Your task to perform on an android device: empty trash in google photos Image 0: 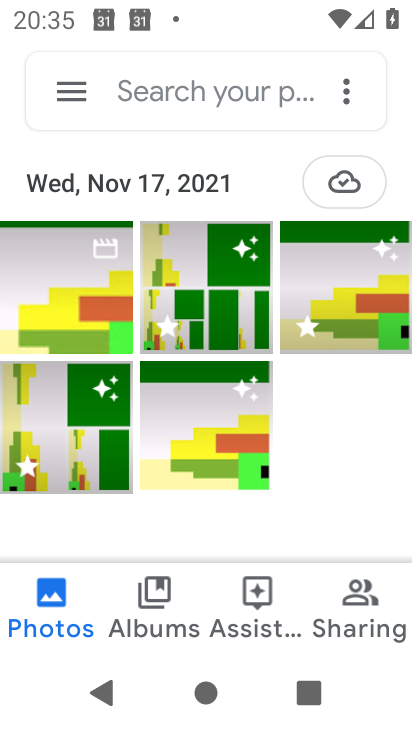
Step 0: click (62, 88)
Your task to perform on an android device: empty trash in google photos Image 1: 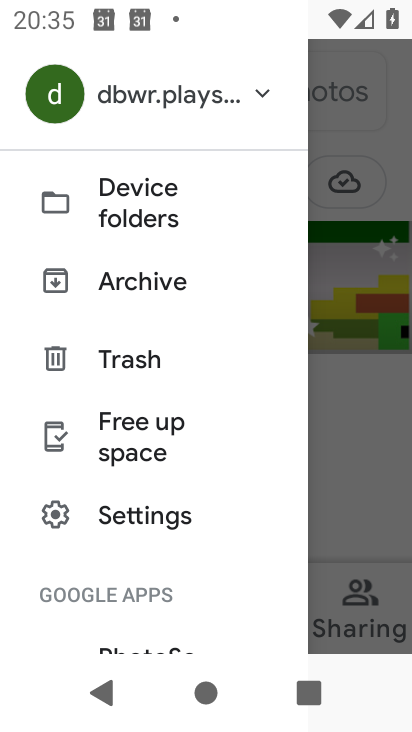
Step 1: click (165, 357)
Your task to perform on an android device: empty trash in google photos Image 2: 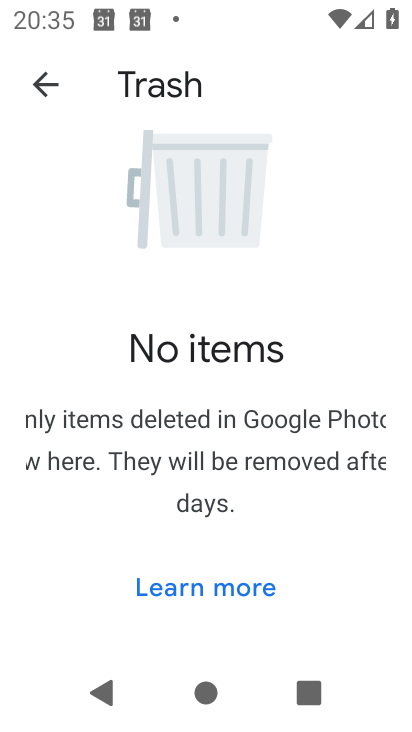
Step 2: task complete